Your task to perform on an android device: Open Maps and search for coffee Image 0: 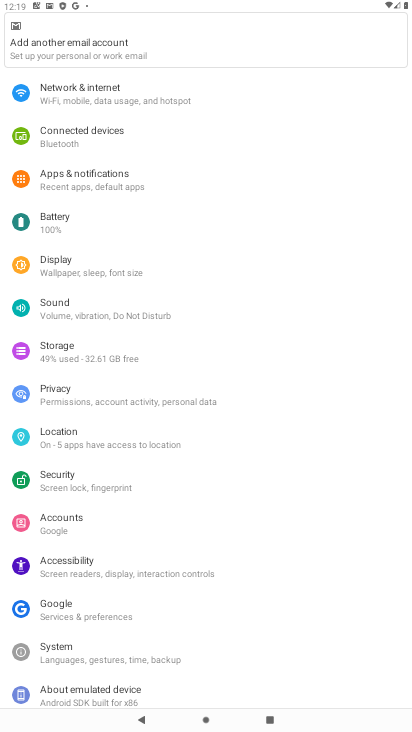
Step 0: press home button
Your task to perform on an android device: Open Maps and search for coffee Image 1: 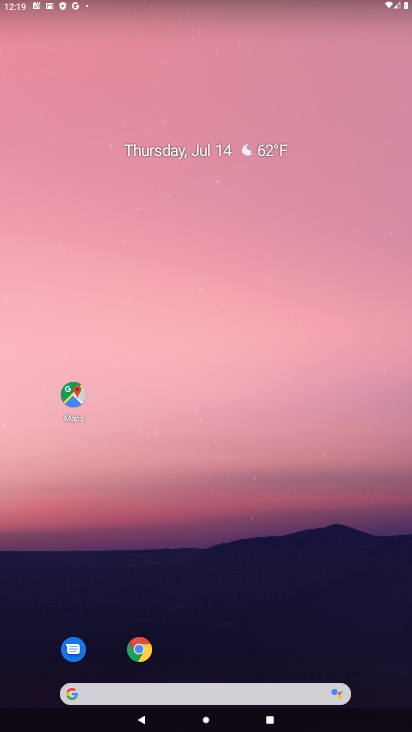
Step 1: drag from (381, 562) to (320, 59)
Your task to perform on an android device: Open Maps and search for coffee Image 2: 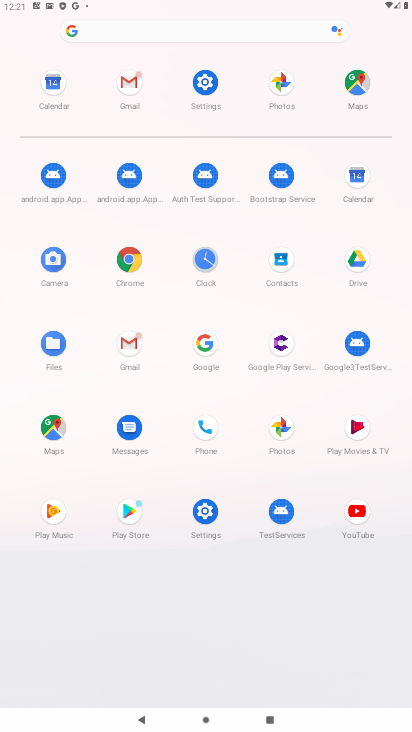
Step 2: click (63, 421)
Your task to perform on an android device: Open Maps and search for coffee Image 3: 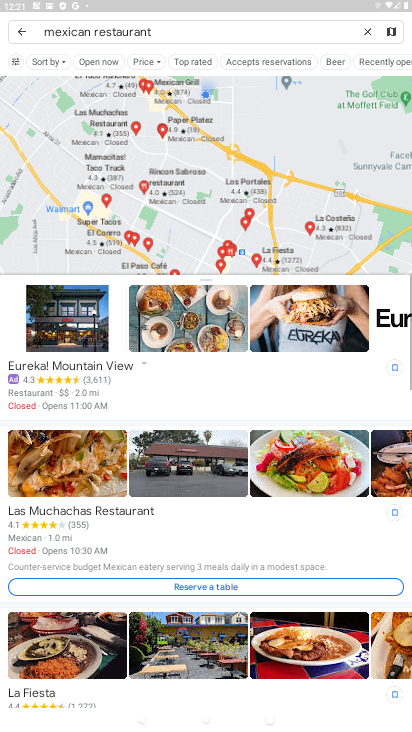
Step 3: click (365, 34)
Your task to perform on an android device: Open Maps and search for coffee Image 4: 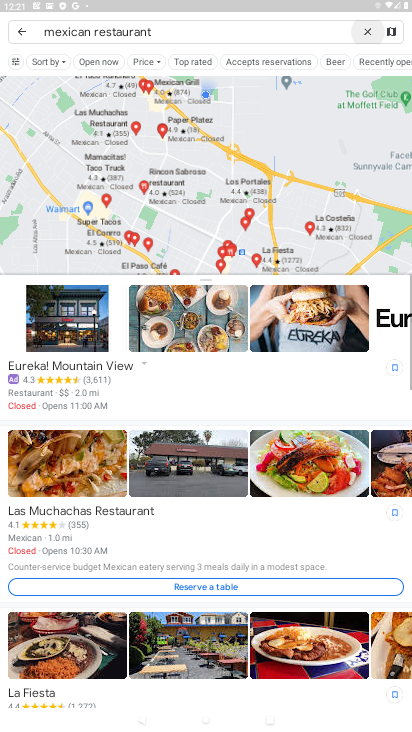
Step 4: click (154, 29)
Your task to perform on an android device: Open Maps and search for coffee Image 5: 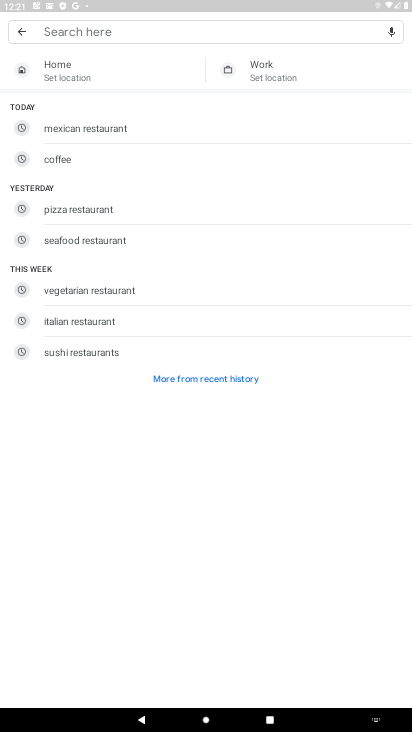
Step 5: click (57, 165)
Your task to perform on an android device: Open Maps and search for coffee Image 6: 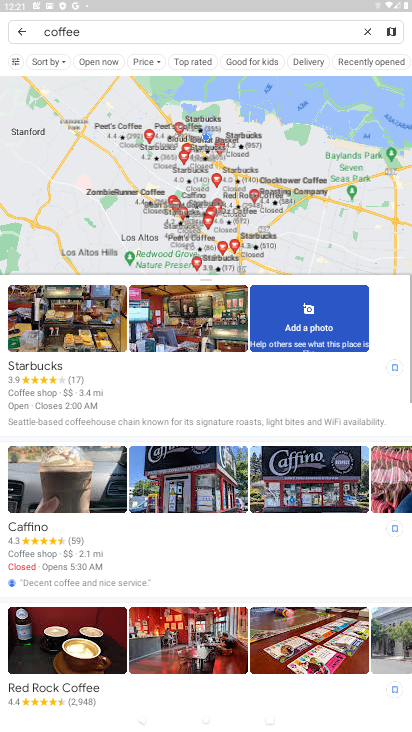
Step 6: task complete